Your task to perform on an android device: find which apps use the phone's location Image 0: 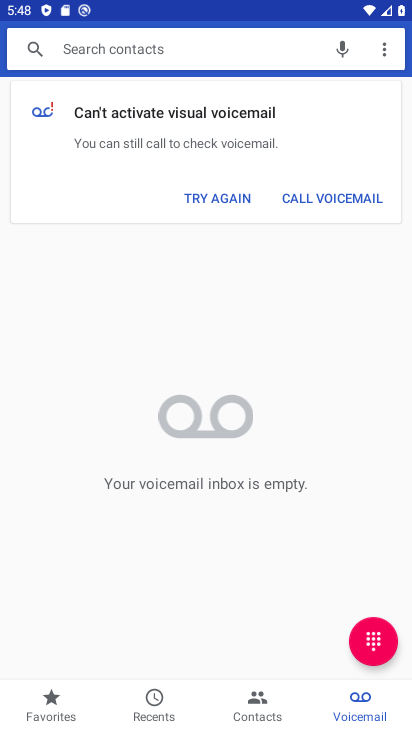
Step 0: press home button
Your task to perform on an android device: find which apps use the phone's location Image 1: 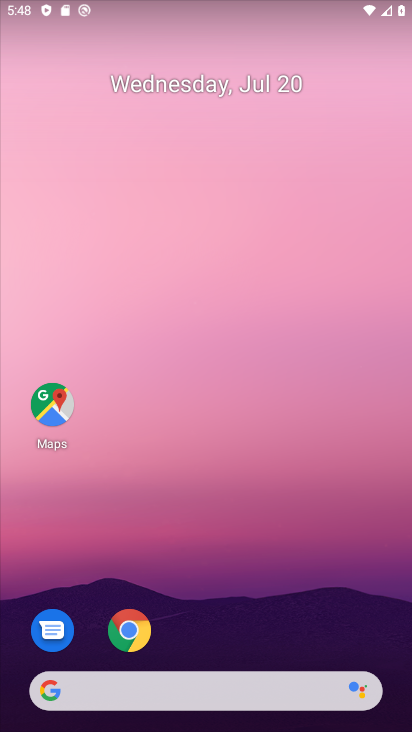
Step 1: drag from (218, 679) to (346, 25)
Your task to perform on an android device: find which apps use the phone's location Image 2: 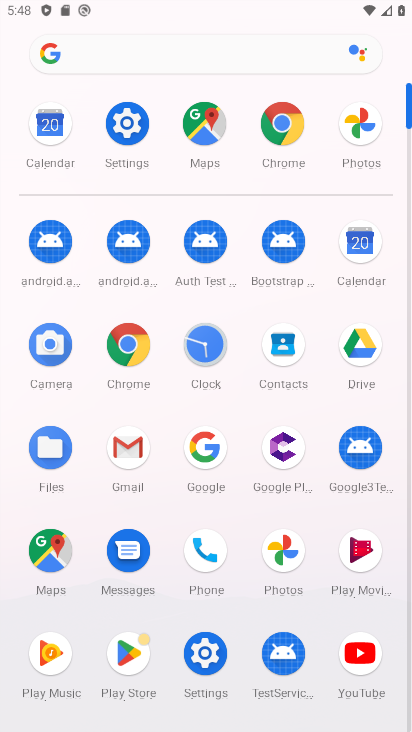
Step 2: click (115, 121)
Your task to perform on an android device: find which apps use the phone's location Image 3: 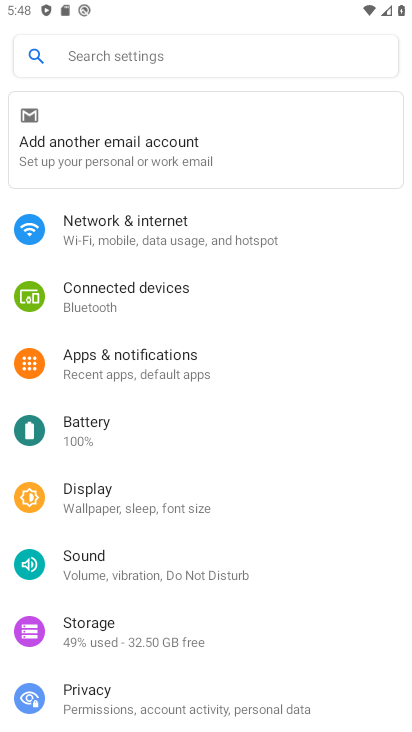
Step 3: drag from (133, 702) to (158, 342)
Your task to perform on an android device: find which apps use the phone's location Image 4: 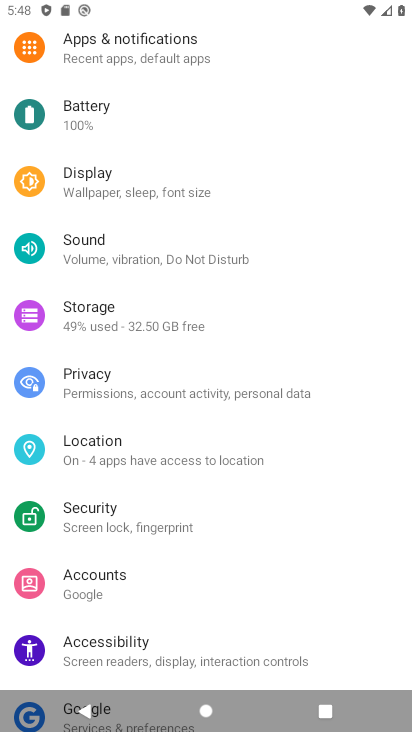
Step 4: click (138, 460)
Your task to perform on an android device: find which apps use the phone's location Image 5: 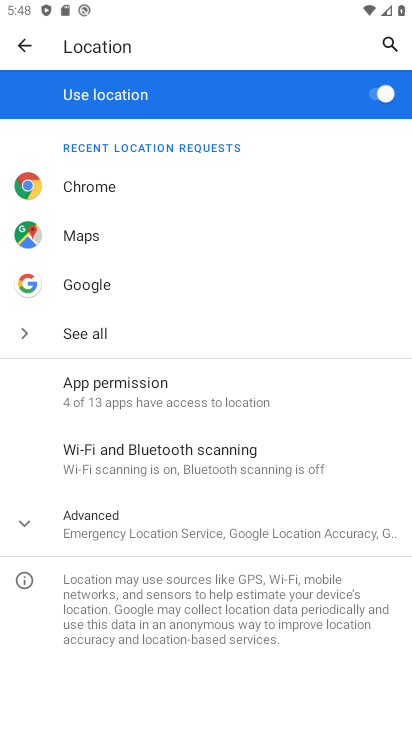
Step 5: click (155, 399)
Your task to perform on an android device: find which apps use the phone's location Image 6: 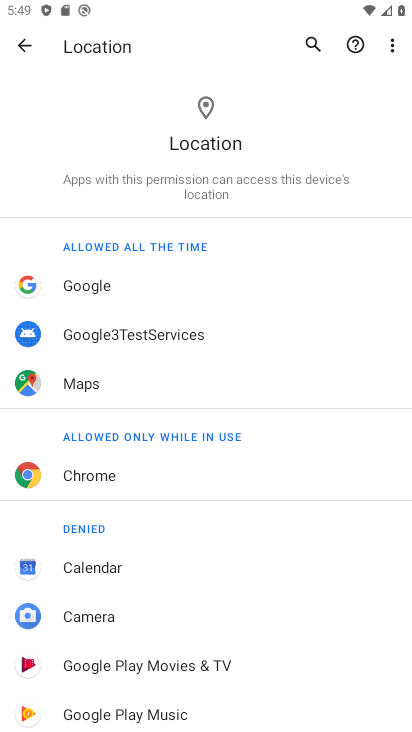
Step 6: task complete